Your task to perform on an android device: Open the phone app and click the voicemail tab. Image 0: 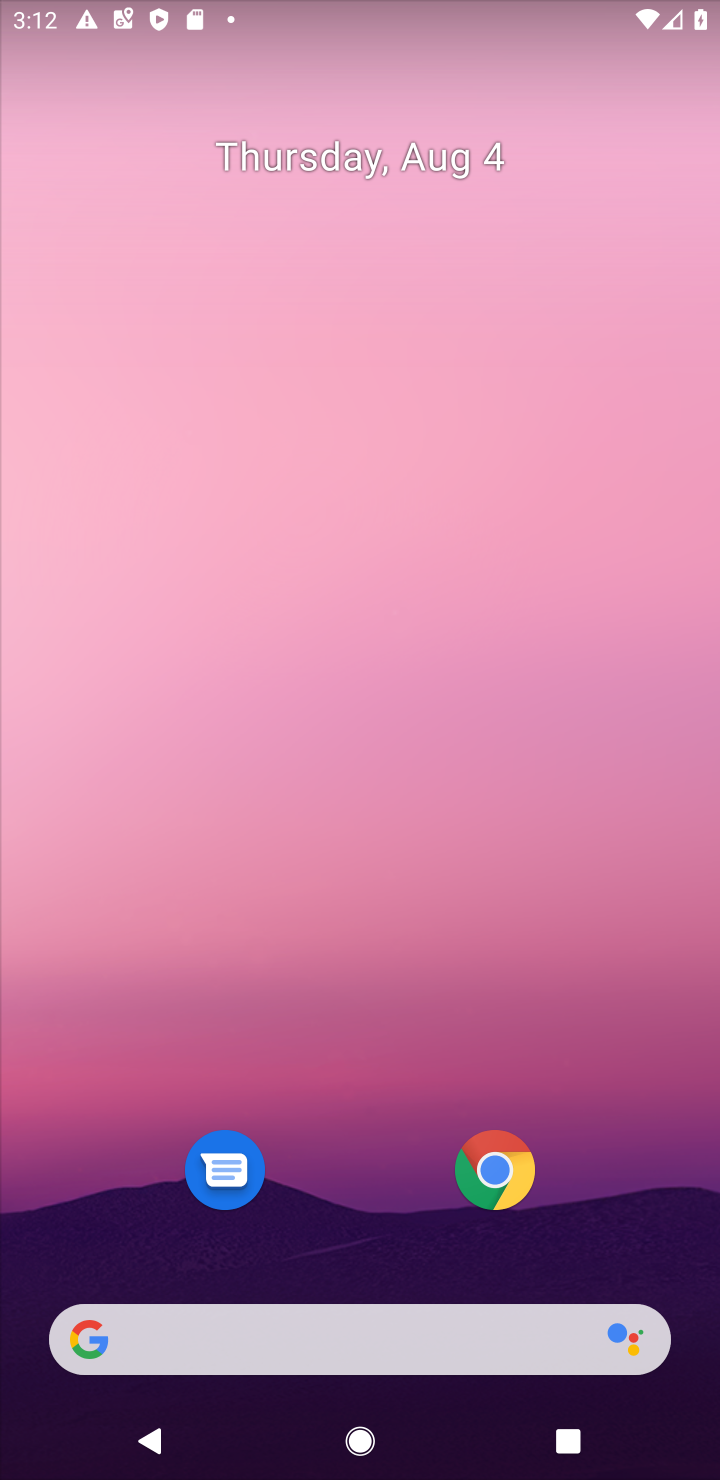
Step 0: drag from (675, 1277) to (604, 289)
Your task to perform on an android device: Open the phone app and click the voicemail tab. Image 1: 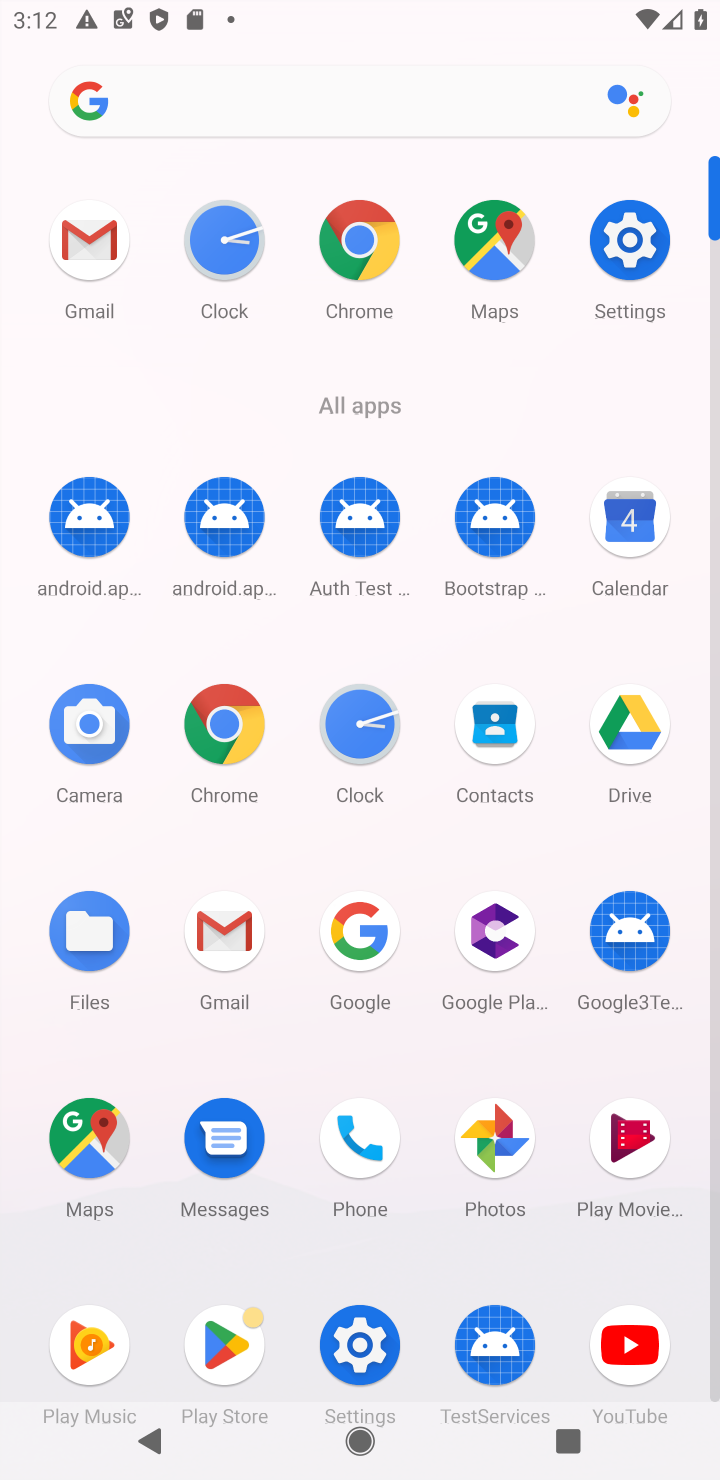
Step 1: click (357, 1140)
Your task to perform on an android device: Open the phone app and click the voicemail tab. Image 2: 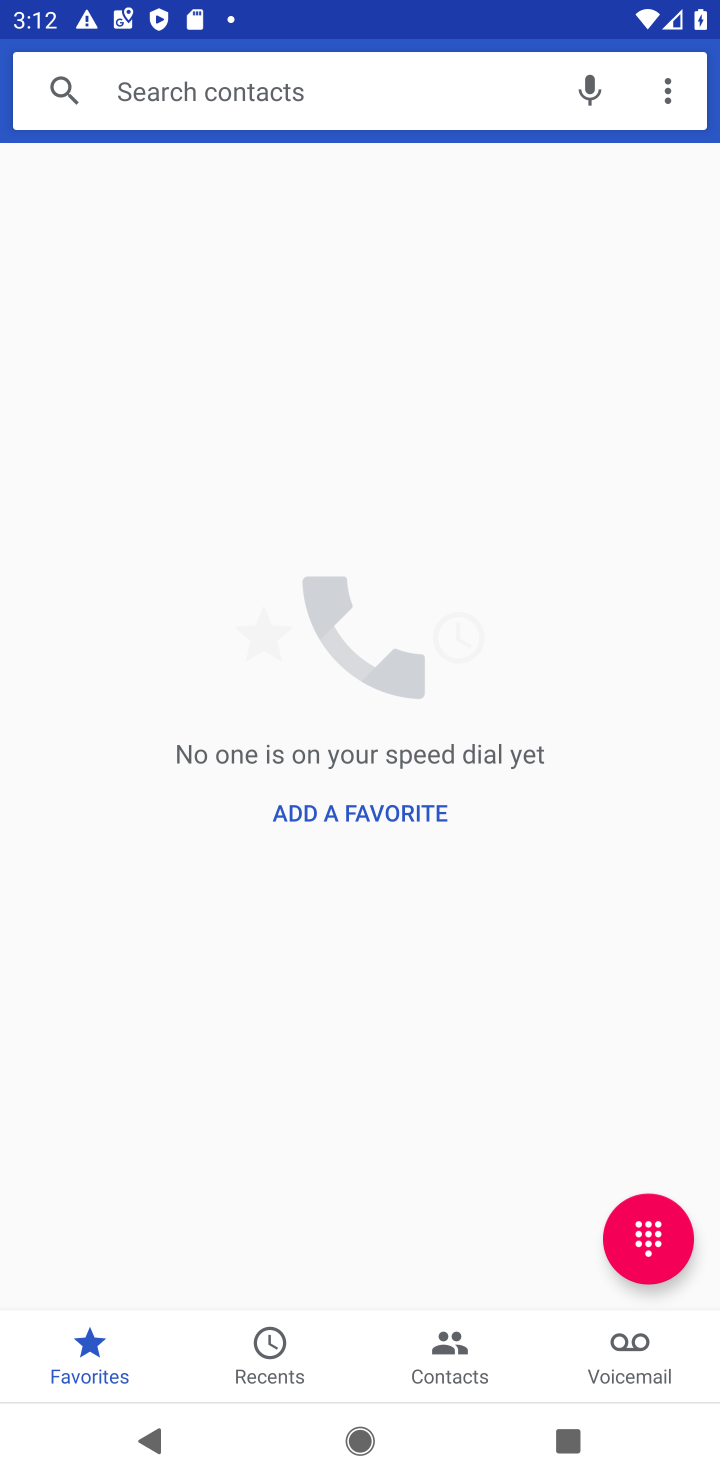
Step 2: click (611, 1350)
Your task to perform on an android device: Open the phone app and click the voicemail tab. Image 3: 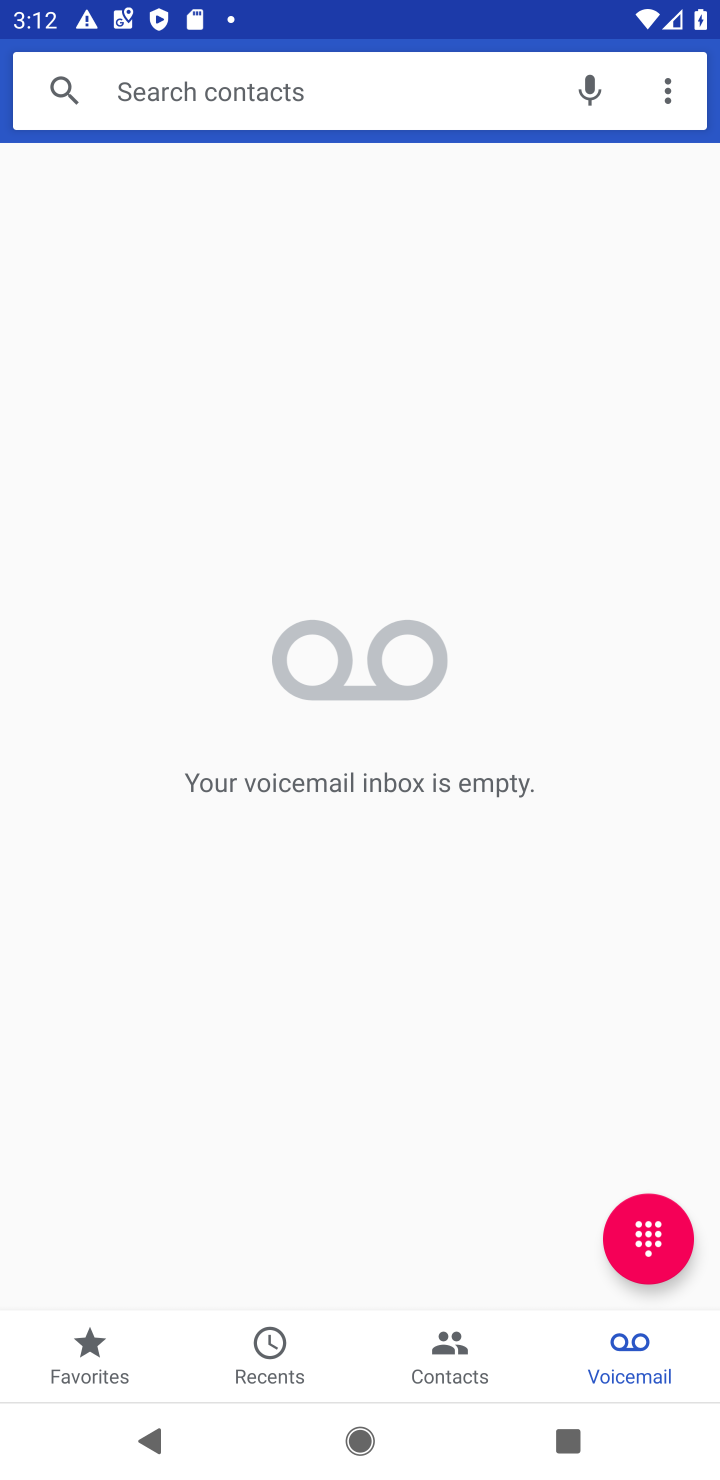
Step 3: task complete